Your task to perform on an android device: Search for Italian restaurants on Maps Image 0: 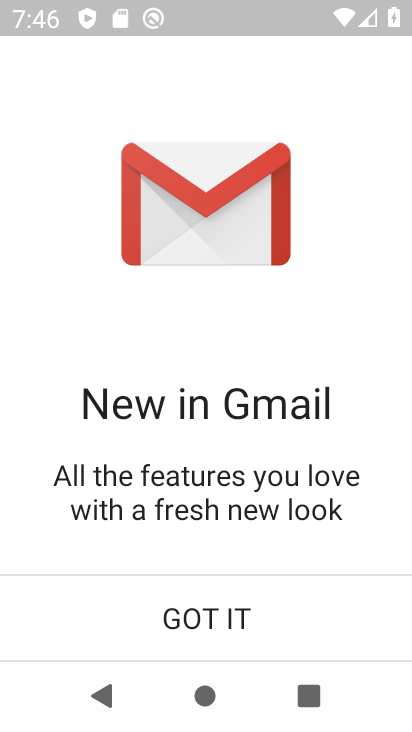
Step 0: press back button
Your task to perform on an android device: Search for Italian restaurants on Maps Image 1: 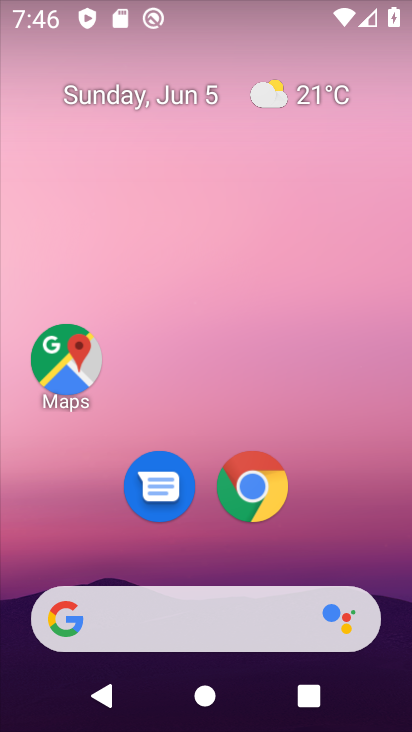
Step 1: click (67, 357)
Your task to perform on an android device: Search for Italian restaurants on Maps Image 2: 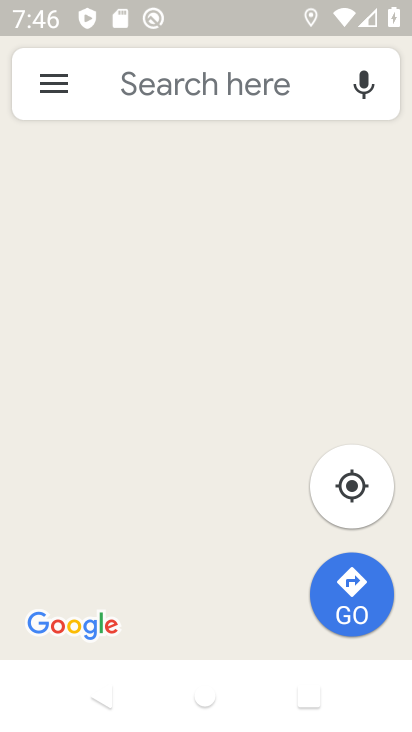
Step 2: click (202, 84)
Your task to perform on an android device: Search for Italian restaurants on Maps Image 3: 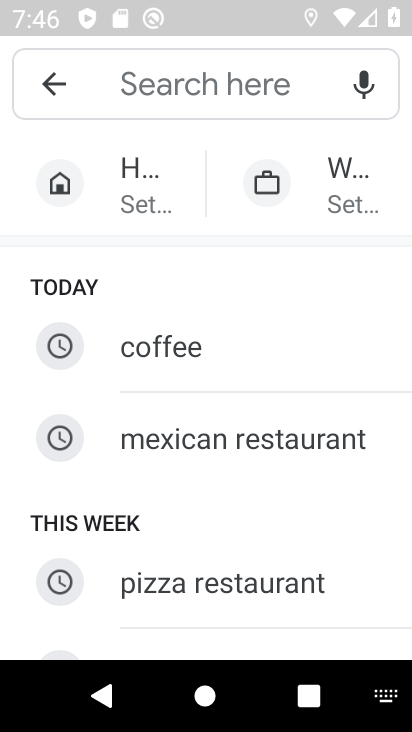
Step 3: type "italian restaurants"
Your task to perform on an android device: Search for Italian restaurants on Maps Image 4: 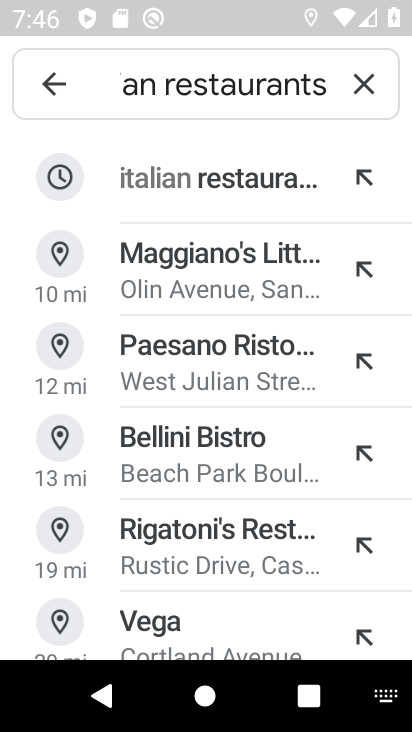
Step 4: click (186, 175)
Your task to perform on an android device: Search for Italian restaurants on Maps Image 5: 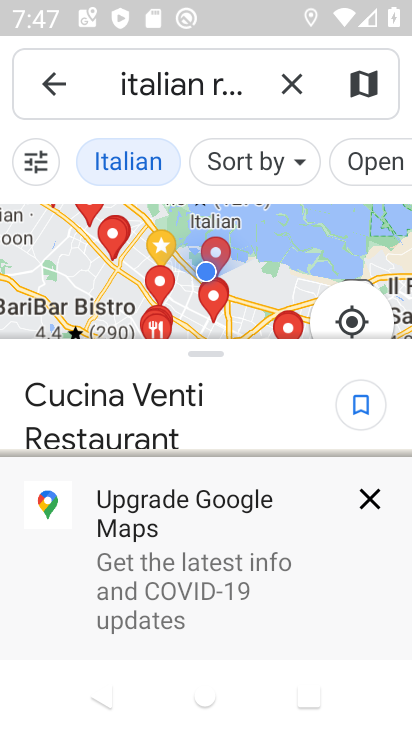
Step 5: task complete